Your task to perform on an android device: Go to privacy settings Image 0: 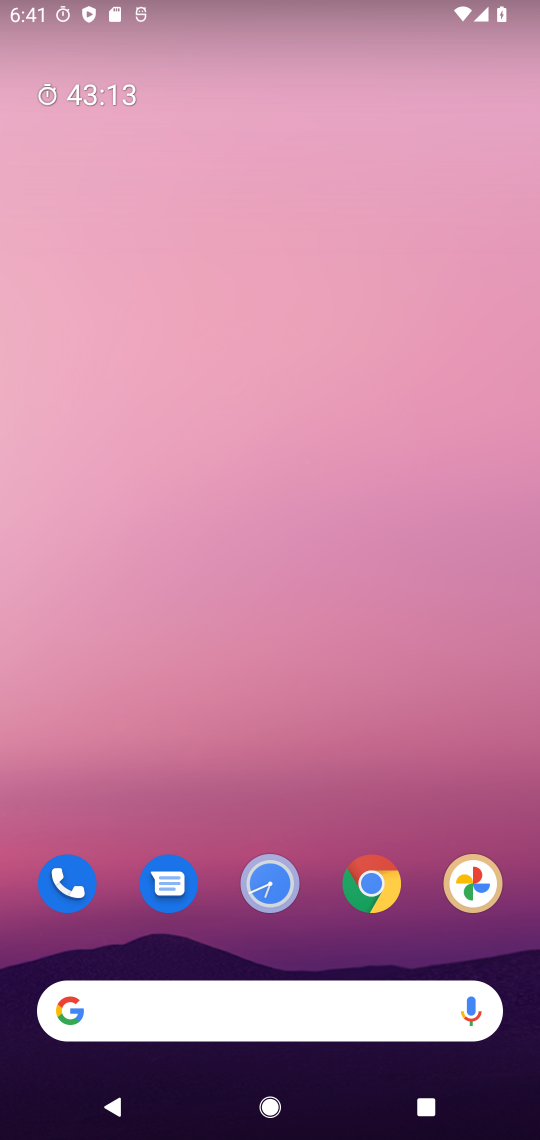
Step 0: drag from (245, 505) to (240, 320)
Your task to perform on an android device: Go to privacy settings Image 1: 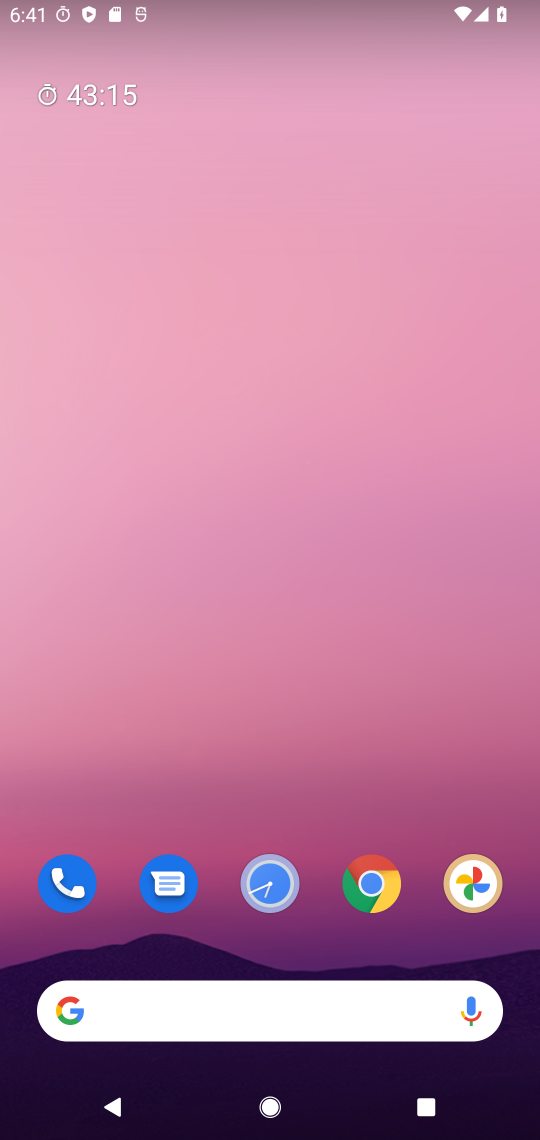
Step 1: drag from (252, 790) to (268, 83)
Your task to perform on an android device: Go to privacy settings Image 2: 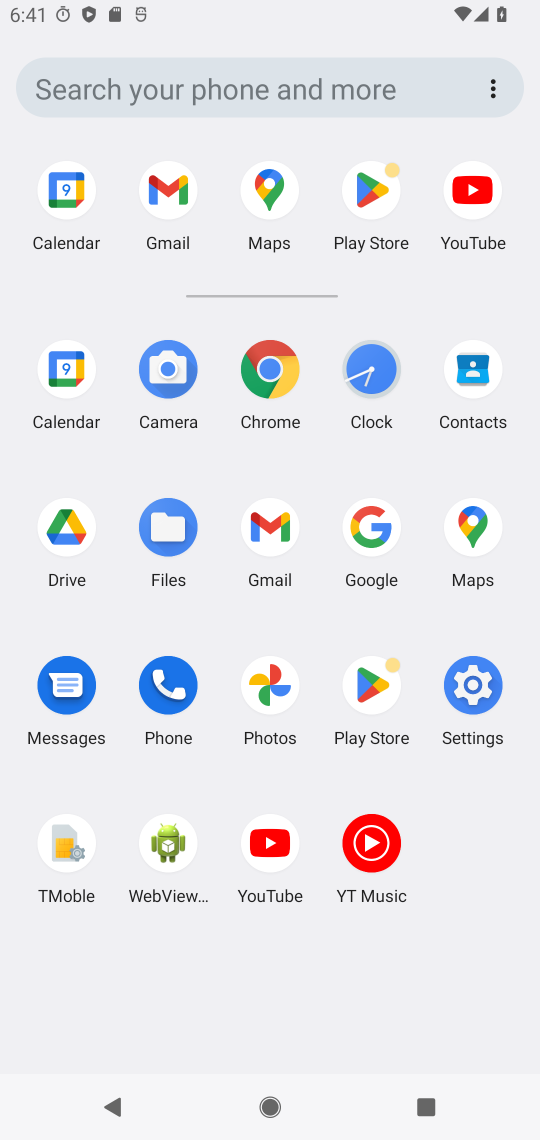
Step 2: click (475, 711)
Your task to perform on an android device: Go to privacy settings Image 3: 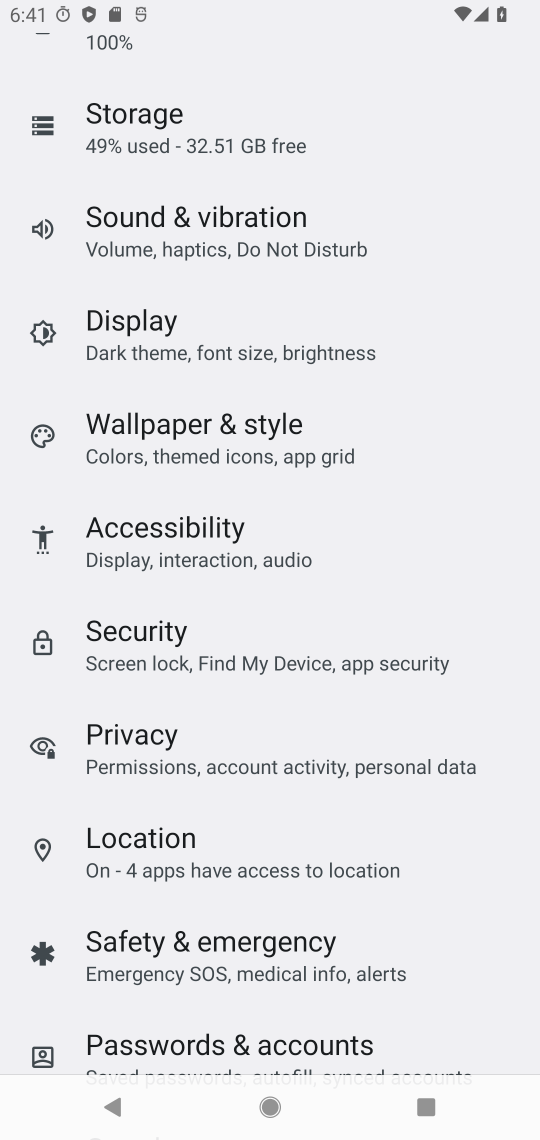
Step 3: click (195, 745)
Your task to perform on an android device: Go to privacy settings Image 4: 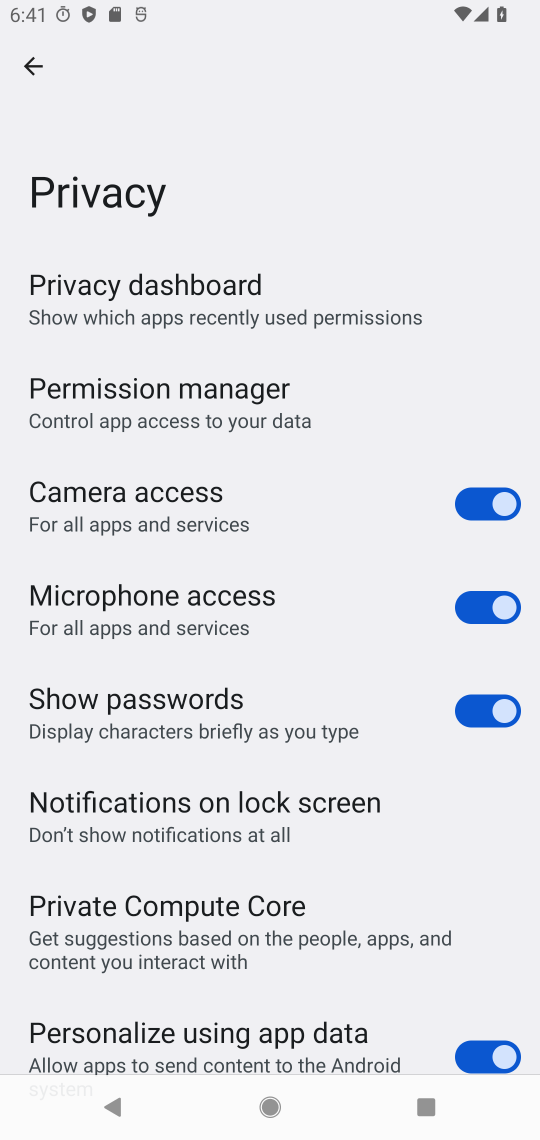
Step 4: task complete